Your task to perform on an android device: change keyboard looks Image 0: 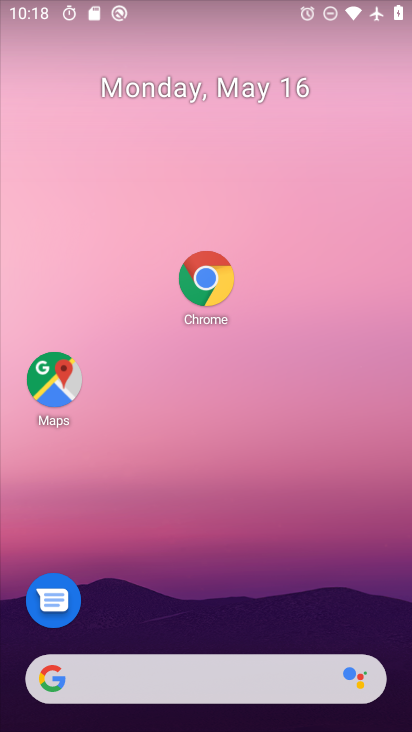
Step 0: drag from (199, 675) to (338, 171)
Your task to perform on an android device: change keyboard looks Image 1: 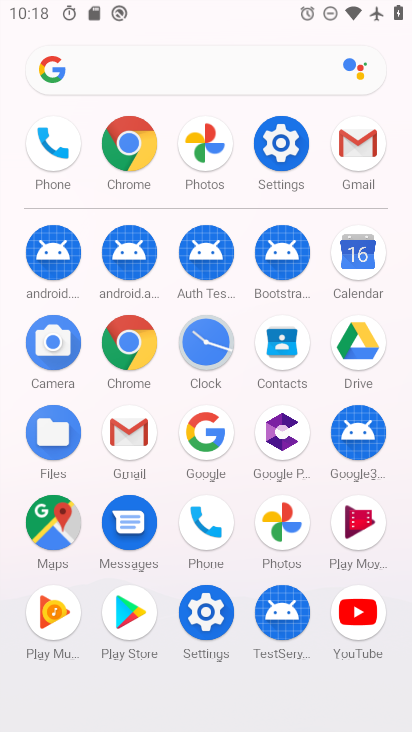
Step 1: click (210, 623)
Your task to perform on an android device: change keyboard looks Image 2: 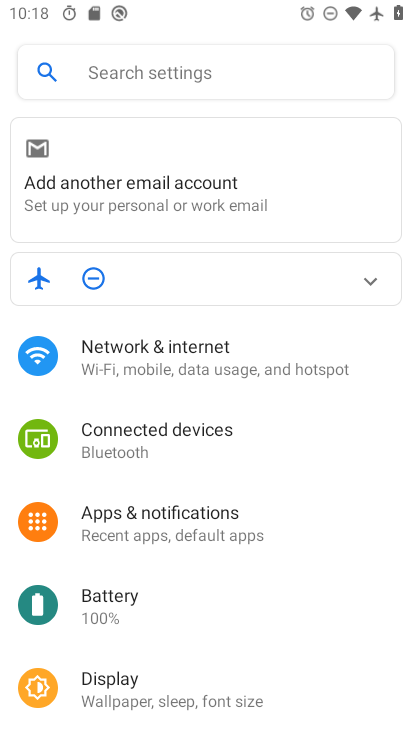
Step 2: drag from (275, 636) to (362, 130)
Your task to perform on an android device: change keyboard looks Image 3: 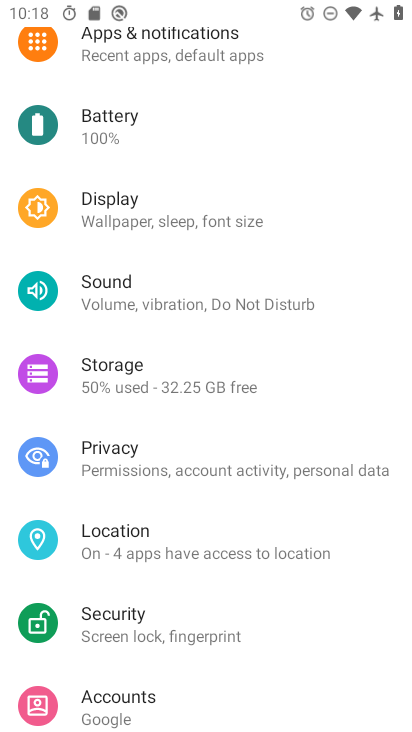
Step 3: drag from (241, 645) to (316, 142)
Your task to perform on an android device: change keyboard looks Image 4: 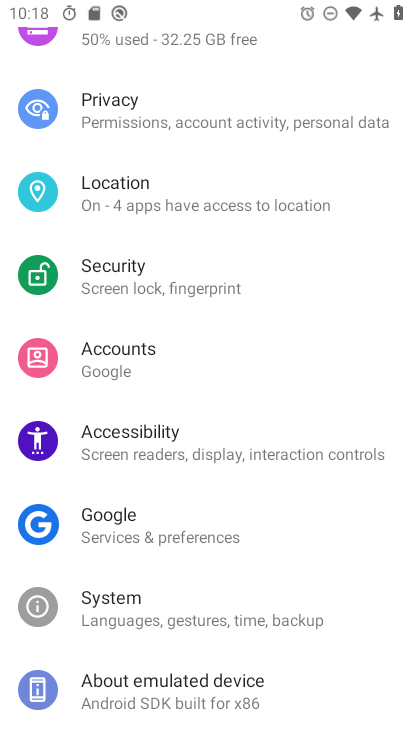
Step 4: click (206, 622)
Your task to perform on an android device: change keyboard looks Image 5: 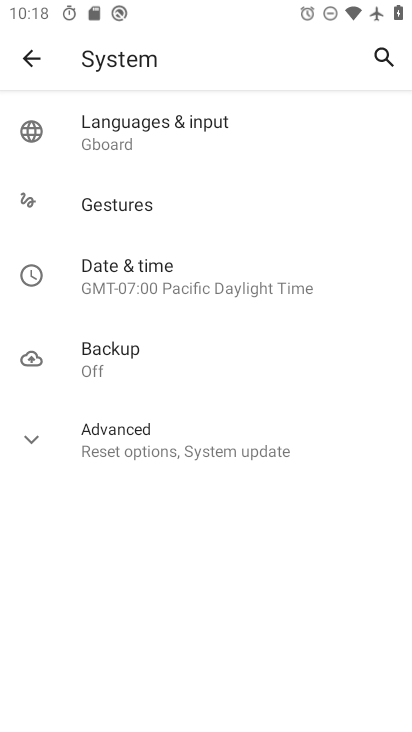
Step 5: click (177, 120)
Your task to perform on an android device: change keyboard looks Image 6: 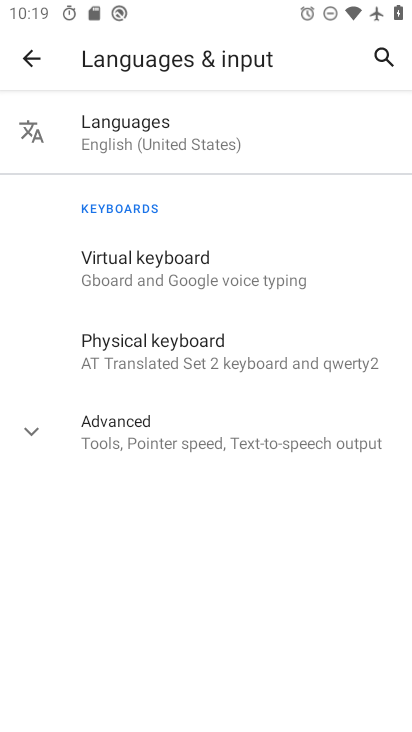
Step 6: click (190, 267)
Your task to perform on an android device: change keyboard looks Image 7: 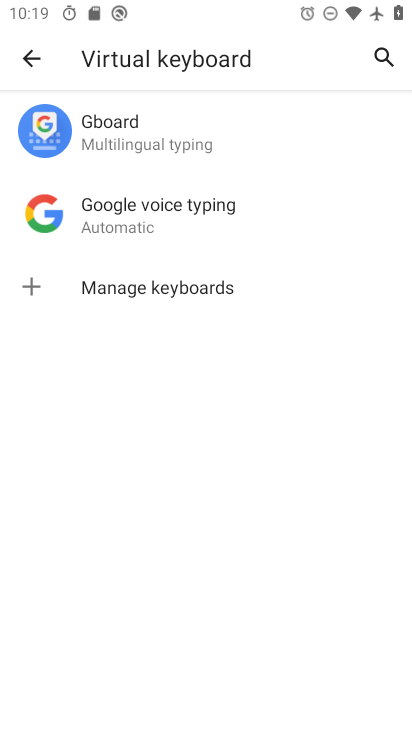
Step 7: click (179, 145)
Your task to perform on an android device: change keyboard looks Image 8: 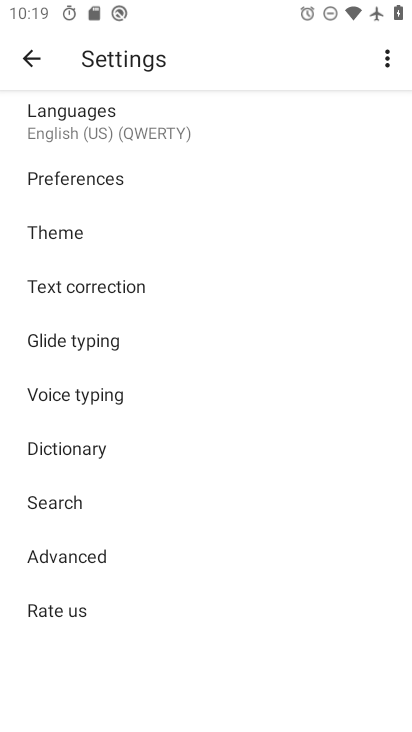
Step 8: click (81, 235)
Your task to perform on an android device: change keyboard looks Image 9: 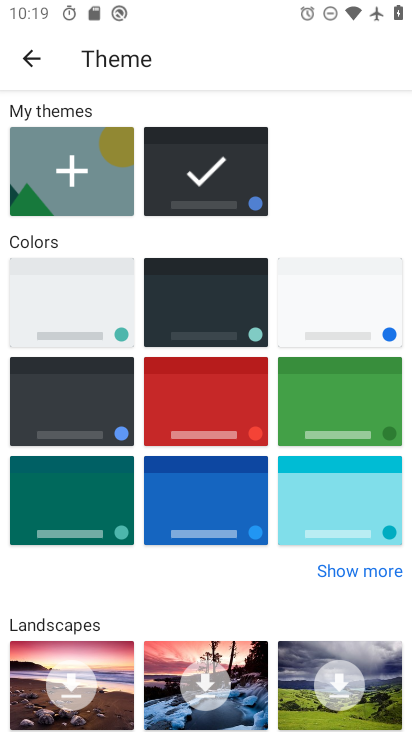
Step 9: click (350, 422)
Your task to perform on an android device: change keyboard looks Image 10: 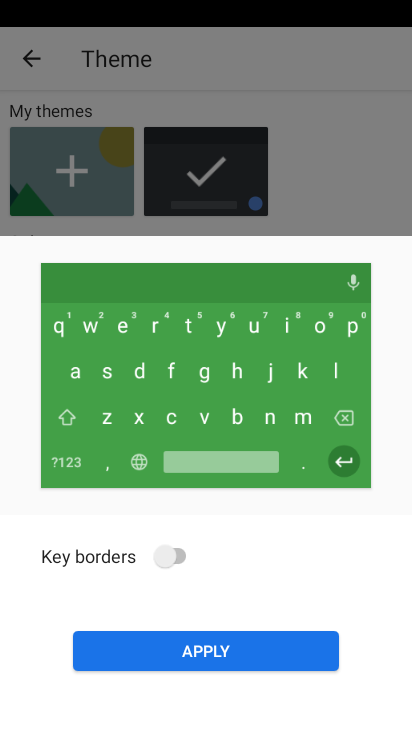
Step 10: click (223, 648)
Your task to perform on an android device: change keyboard looks Image 11: 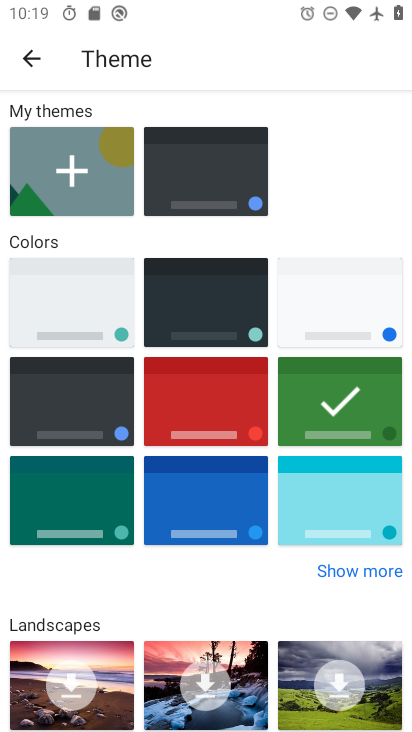
Step 11: task complete